Your task to perform on an android device: Open Chrome and go to the settings page Image 0: 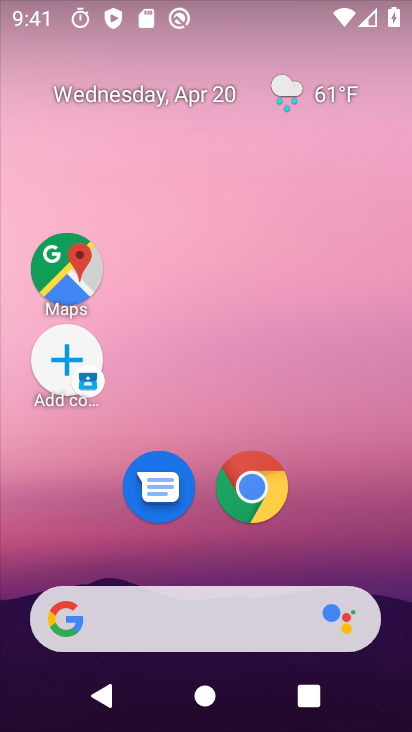
Step 0: click (239, 490)
Your task to perform on an android device: Open Chrome and go to the settings page Image 1: 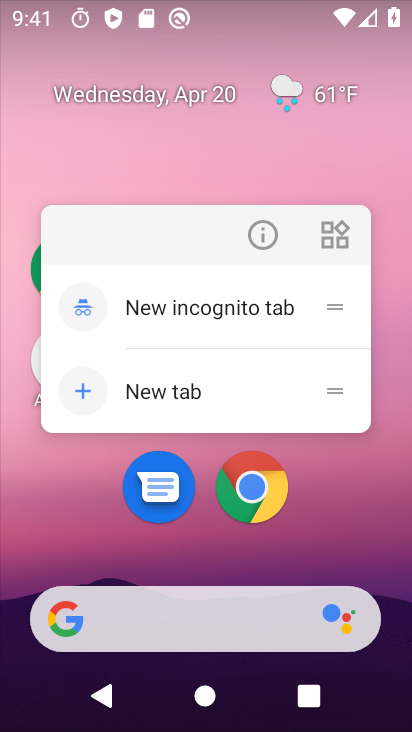
Step 1: click (234, 495)
Your task to perform on an android device: Open Chrome and go to the settings page Image 2: 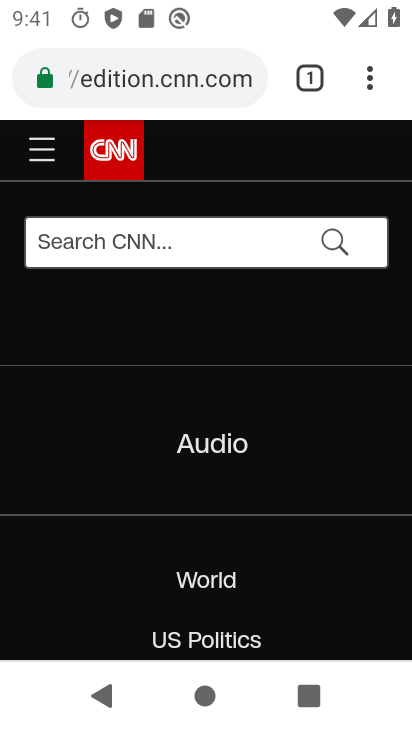
Step 2: click (368, 77)
Your task to perform on an android device: Open Chrome and go to the settings page Image 3: 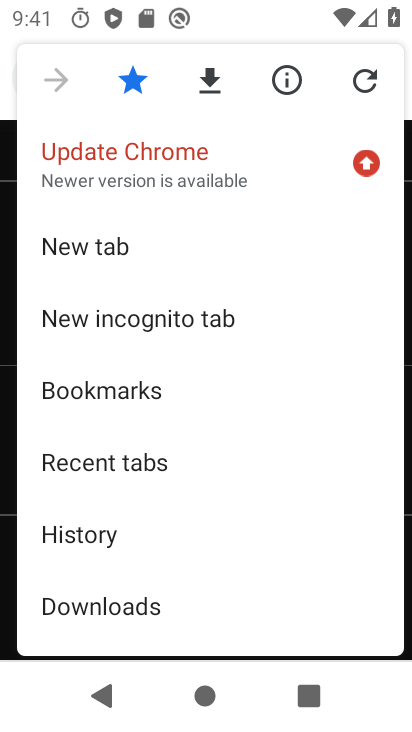
Step 3: drag from (57, 617) to (35, 494)
Your task to perform on an android device: Open Chrome and go to the settings page Image 4: 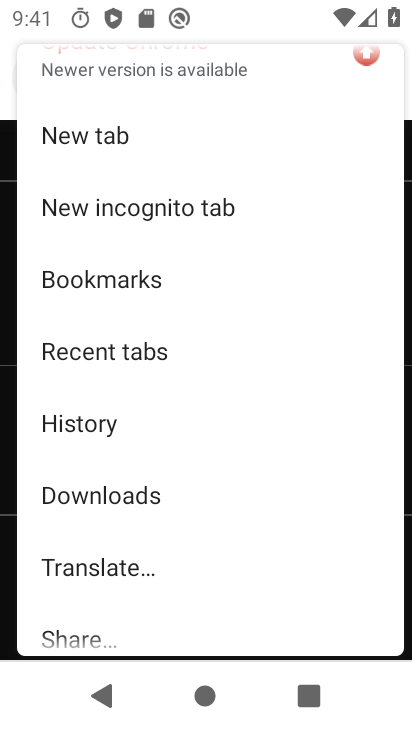
Step 4: drag from (102, 598) to (90, 442)
Your task to perform on an android device: Open Chrome and go to the settings page Image 5: 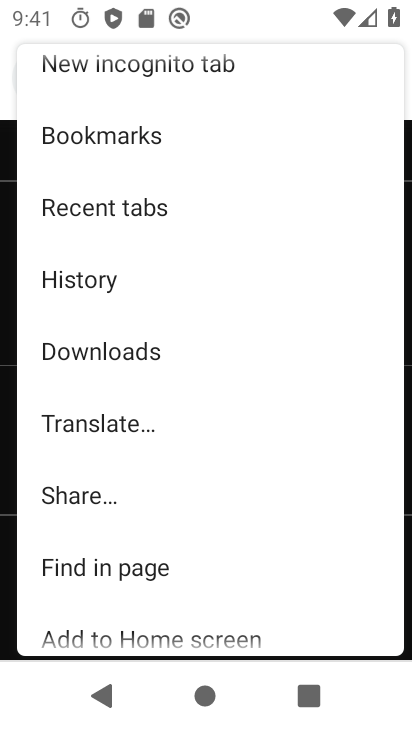
Step 5: drag from (135, 606) to (104, 450)
Your task to perform on an android device: Open Chrome and go to the settings page Image 6: 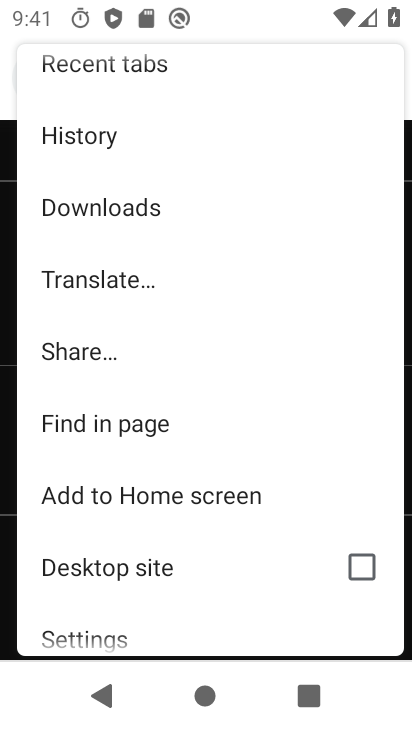
Step 6: drag from (154, 592) to (139, 465)
Your task to perform on an android device: Open Chrome and go to the settings page Image 7: 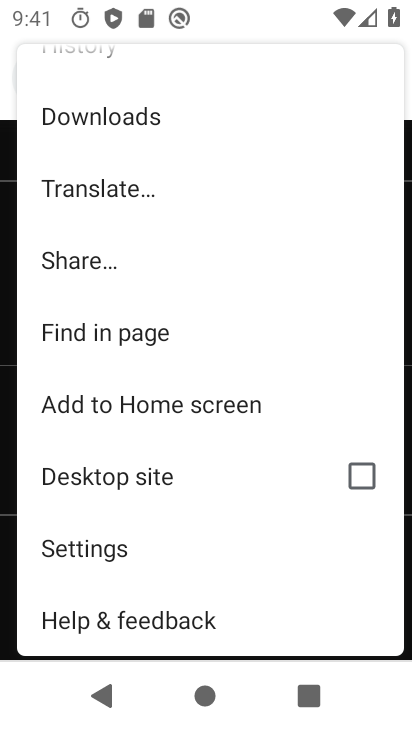
Step 7: click (122, 557)
Your task to perform on an android device: Open Chrome and go to the settings page Image 8: 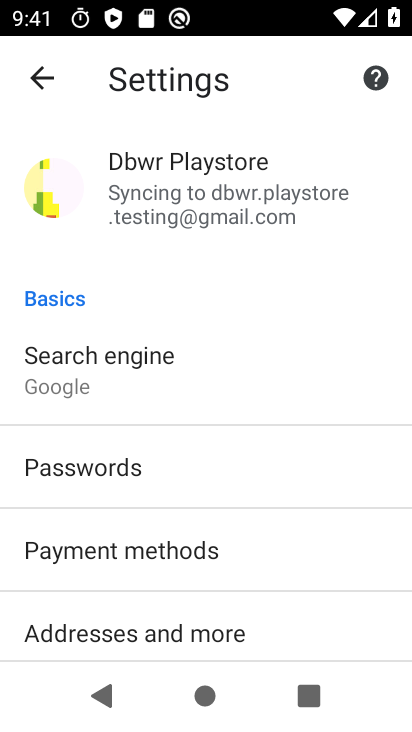
Step 8: task complete